Your task to perform on an android device: Open the map Image 0: 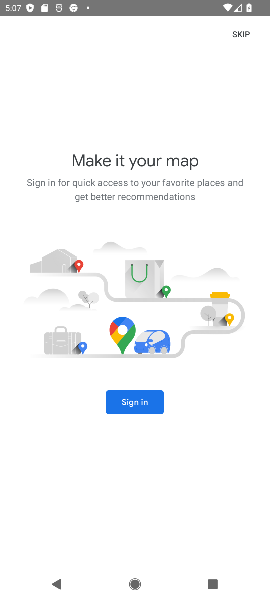
Step 0: click (248, 33)
Your task to perform on an android device: Open the map Image 1: 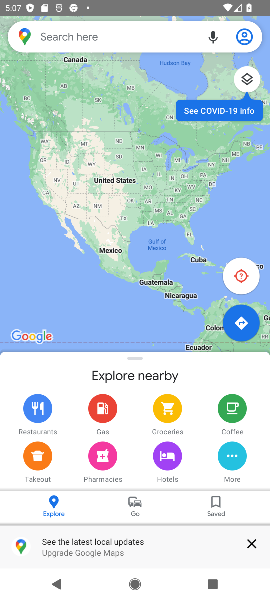
Step 1: task complete